Your task to perform on an android device: Show me recent news Image 0: 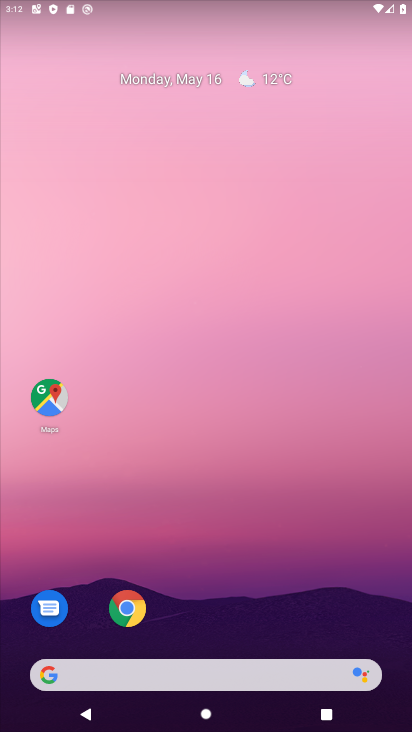
Step 0: click (127, 611)
Your task to perform on an android device: Show me recent news Image 1: 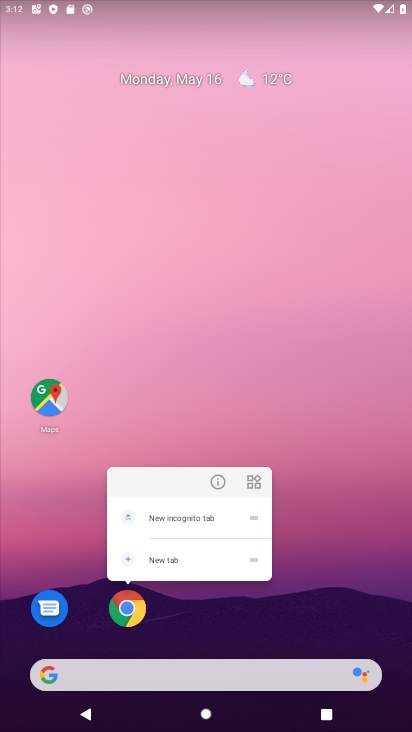
Step 1: click (123, 613)
Your task to perform on an android device: Show me recent news Image 2: 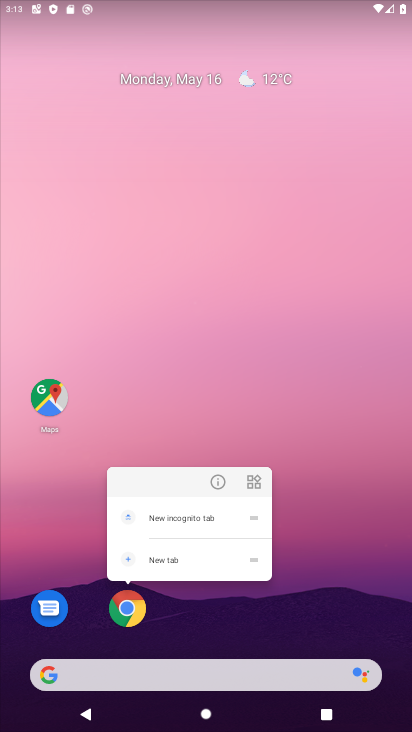
Step 2: click (222, 483)
Your task to perform on an android device: Show me recent news Image 3: 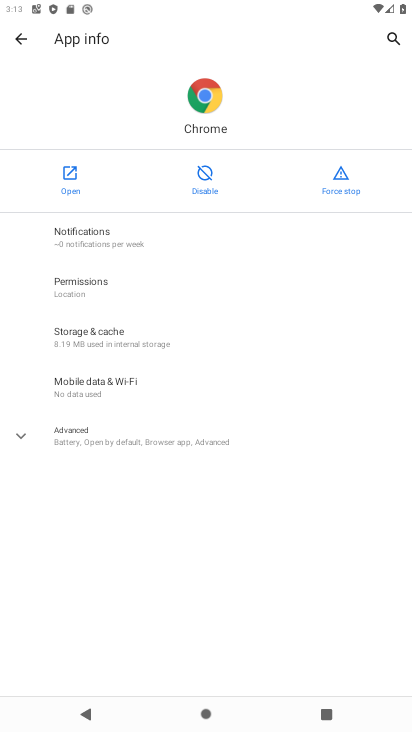
Step 3: click (74, 180)
Your task to perform on an android device: Show me recent news Image 4: 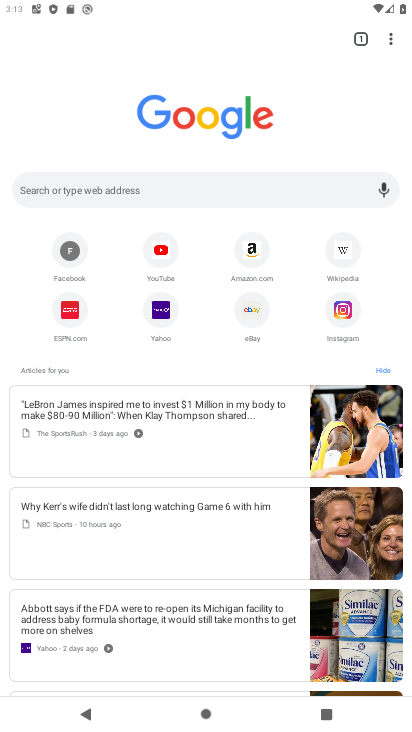
Step 4: type "recent news"
Your task to perform on an android device: Show me recent news Image 5: 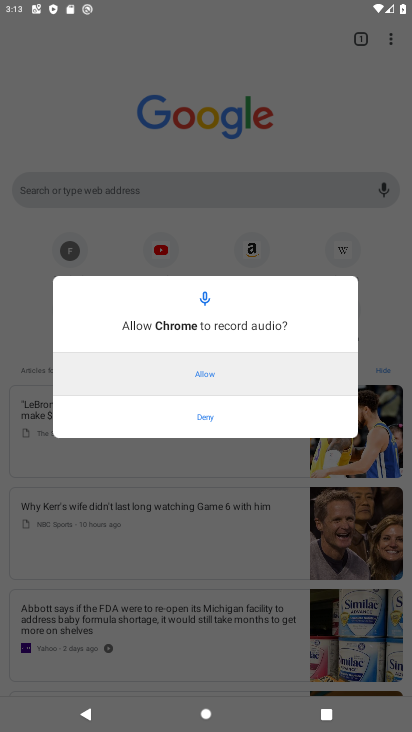
Step 5: press home button
Your task to perform on an android device: Show me recent news Image 6: 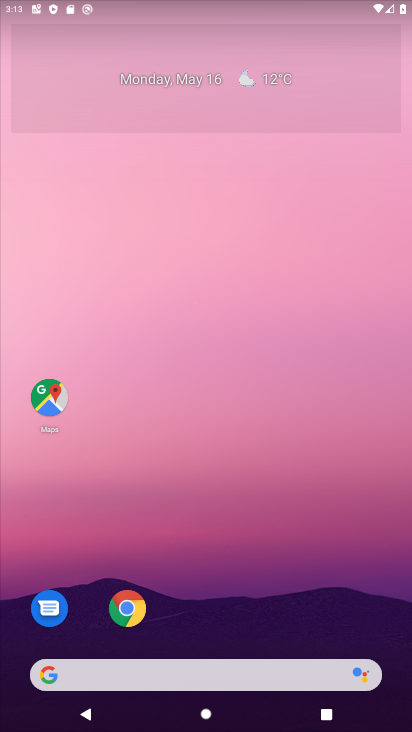
Step 6: click (251, 600)
Your task to perform on an android device: Show me recent news Image 7: 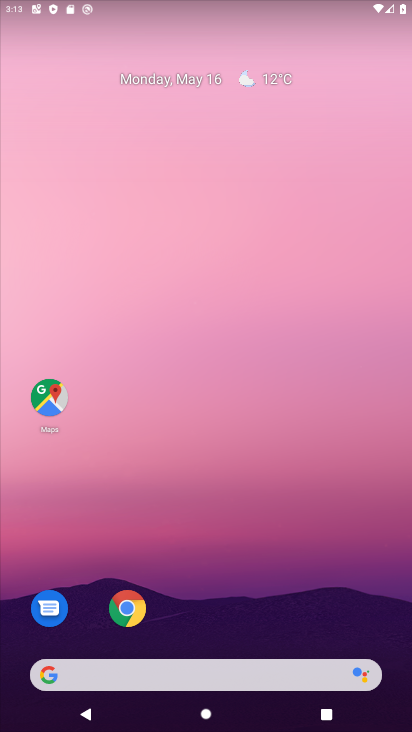
Step 7: click (130, 603)
Your task to perform on an android device: Show me recent news Image 8: 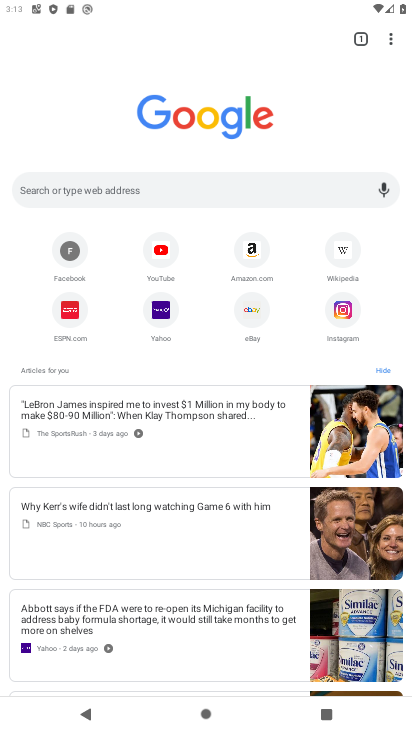
Step 8: click (99, 190)
Your task to perform on an android device: Show me recent news Image 9: 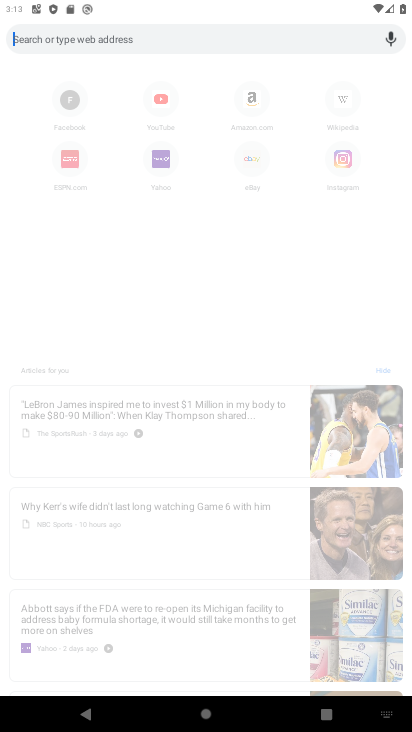
Step 9: type "news"
Your task to perform on an android device: Show me recent news Image 10: 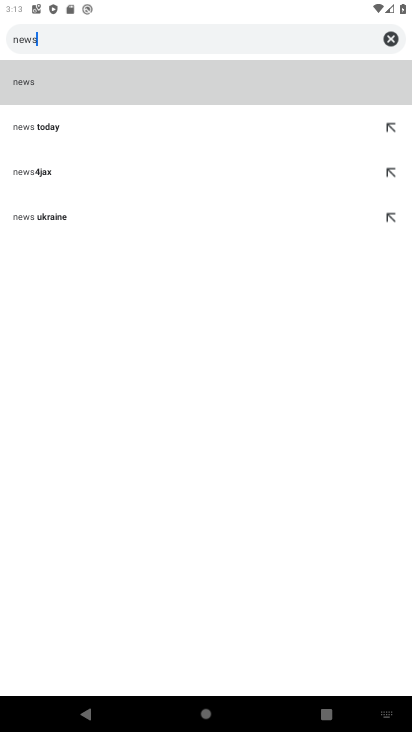
Step 10: click (189, 88)
Your task to perform on an android device: Show me recent news Image 11: 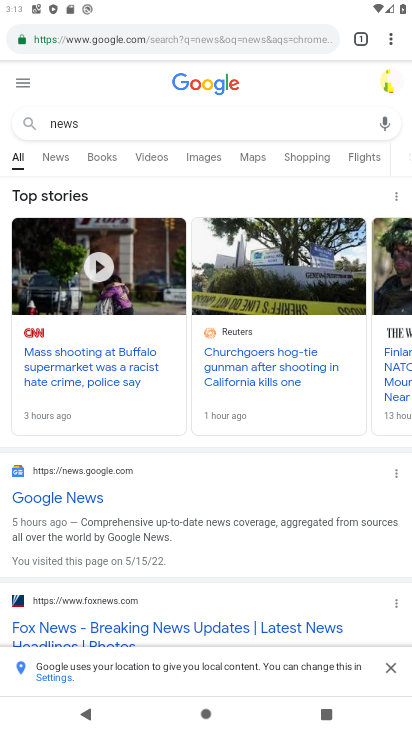
Step 11: task complete